Your task to perform on an android device: read, delete, or share a saved page in the chrome app Image 0: 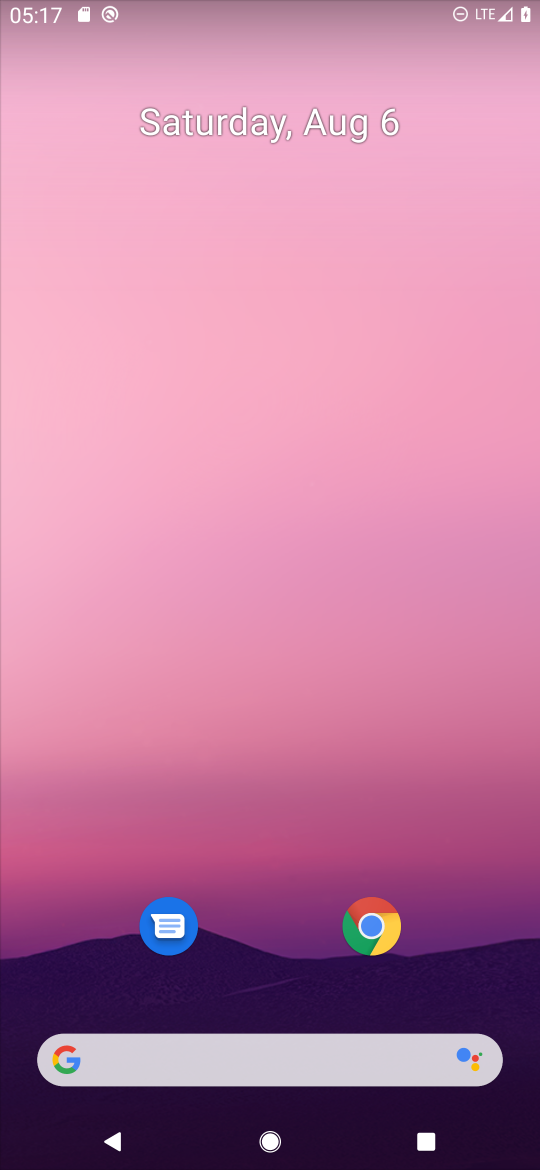
Step 0: click (381, 930)
Your task to perform on an android device: read, delete, or share a saved page in the chrome app Image 1: 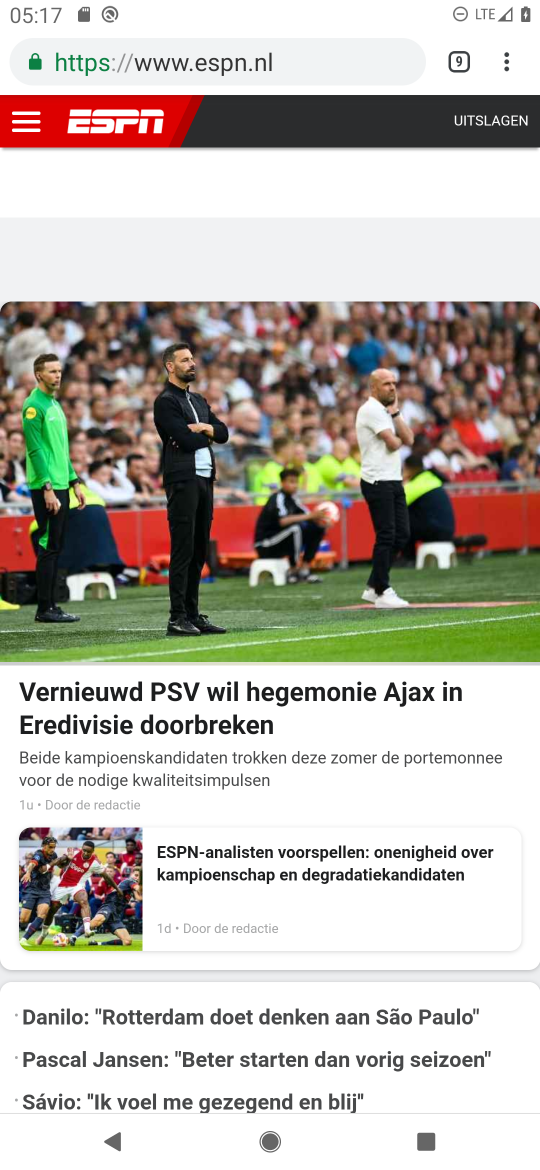
Step 1: click (509, 71)
Your task to perform on an android device: read, delete, or share a saved page in the chrome app Image 2: 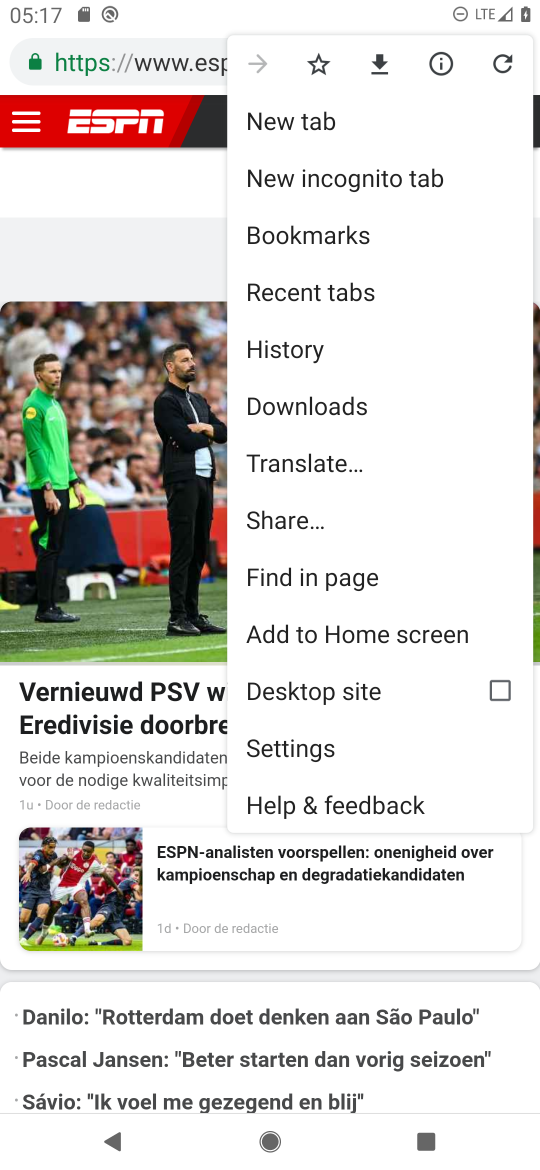
Step 2: click (320, 743)
Your task to perform on an android device: read, delete, or share a saved page in the chrome app Image 3: 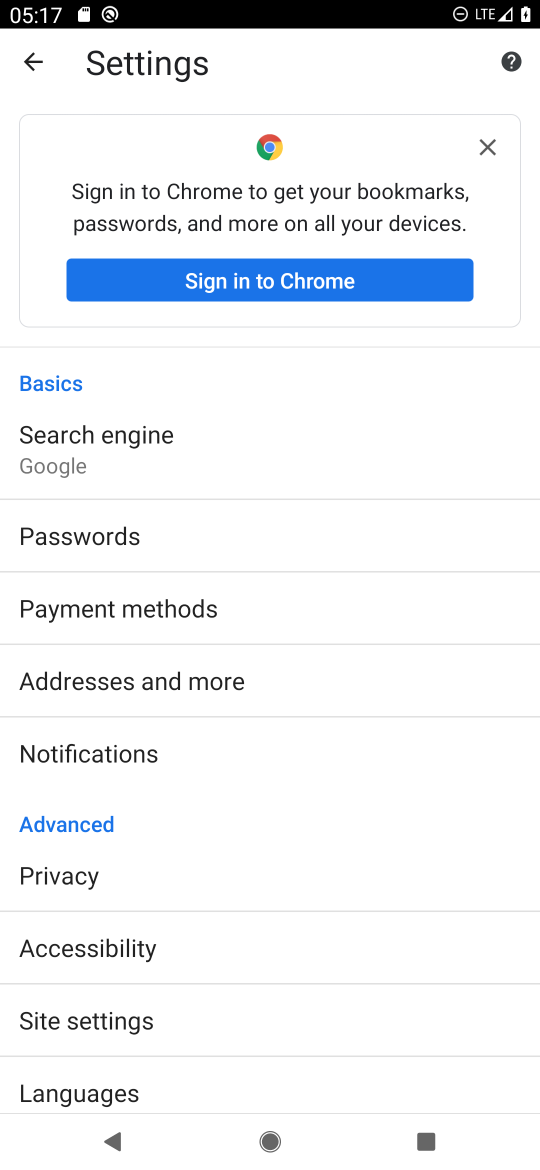
Step 3: click (36, 68)
Your task to perform on an android device: read, delete, or share a saved page in the chrome app Image 4: 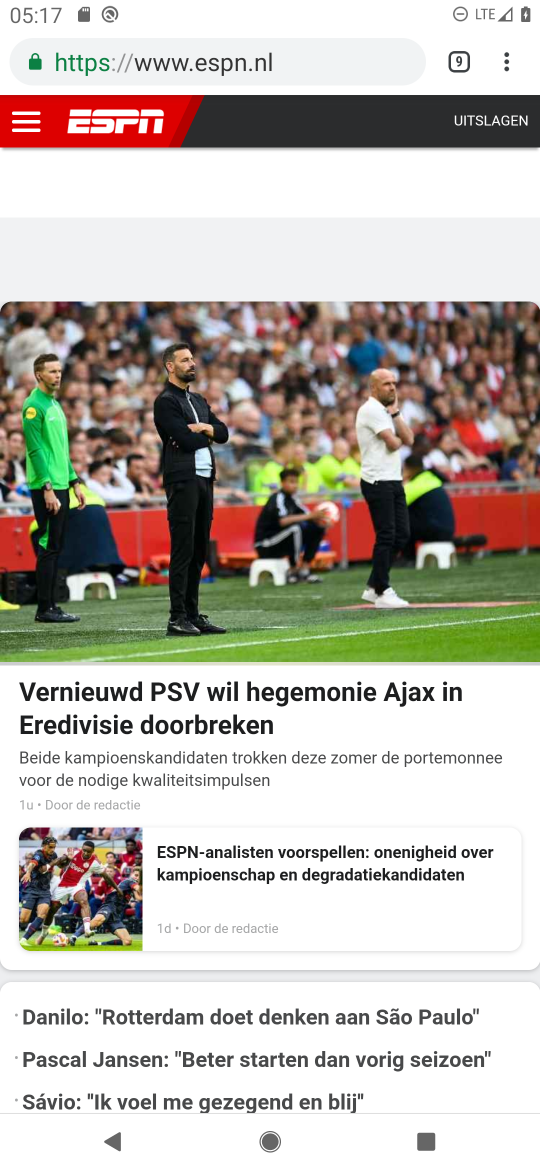
Step 4: click (504, 57)
Your task to perform on an android device: read, delete, or share a saved page in the chrome app Image 5: 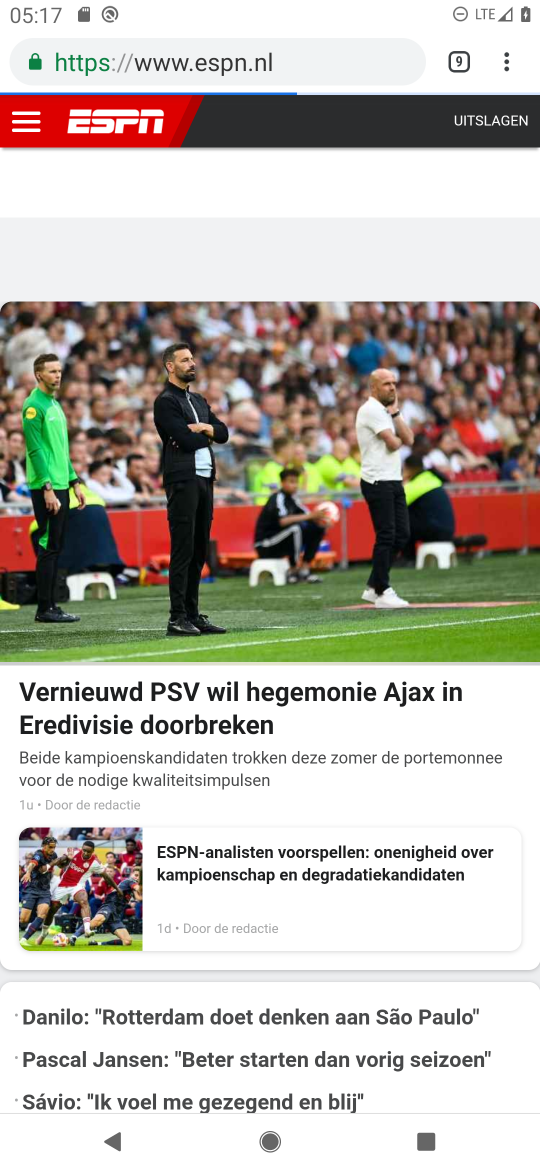
Step 5: task complete